Your task to perform on an android device: Show me popular games on the Play Store Image 0: 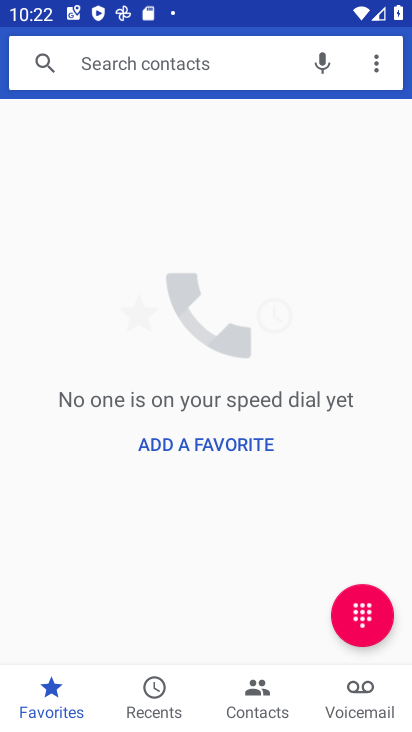
Step 0: press home button
Your task to perform on an android device: Show me popular games on the Play Store Image 1: 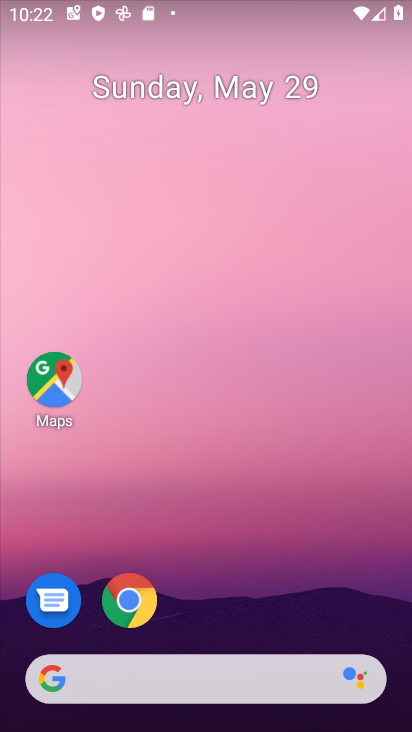
Step 1: drag from (242, 725) to (251, 120)
Your task to perform on an android device: Show me popular games on the Play Store Image 2: 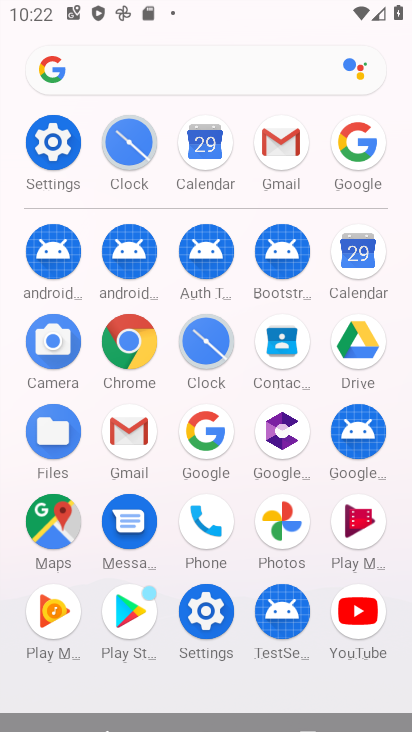
Step 2: click (125, 616)
Your task to perform on an android device: Show me popular games on the Play Store Image 3: 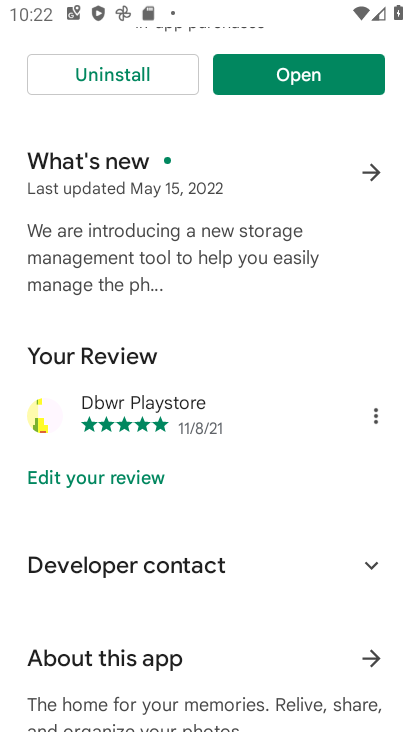
Step 3: drag from (189, 206) to (221, 534)
Your task to perform on an android device: Show me popular games on the Play Store Image 4: 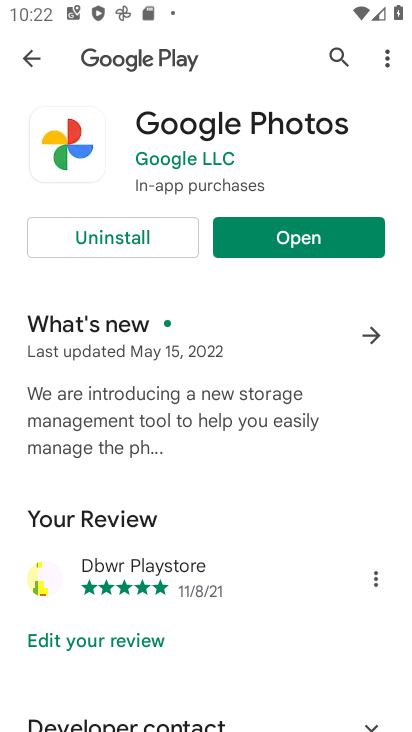
Step 4: click (28, 59)
Your task to perform on an android device: Show me popular games on the Play Store Image 5: 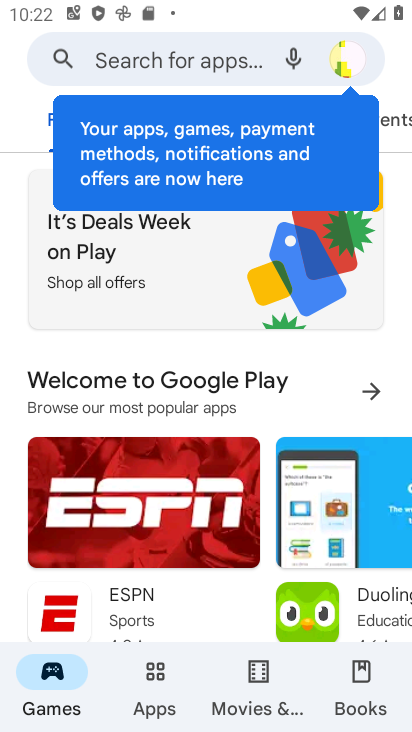
Step 5: drag from (204, 569) to (191, 224)
Your task to perform on an android device: Show me popular games on the Play Store Image 6: 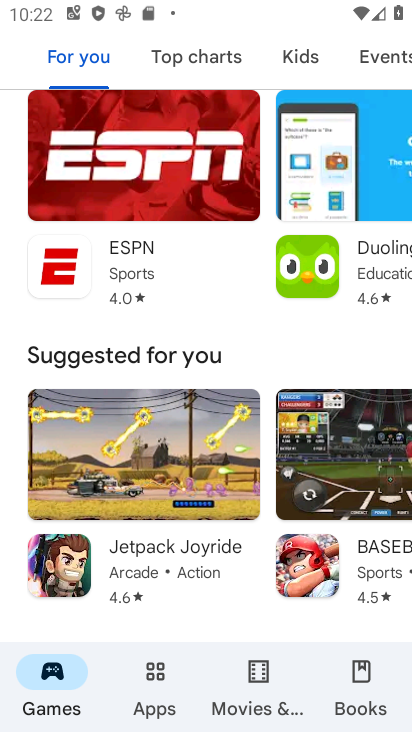
Step 6: drag from (216, 619) to (187, 90)
Your task to perform on an android device: Show me popular games on the Play Store Image 7: 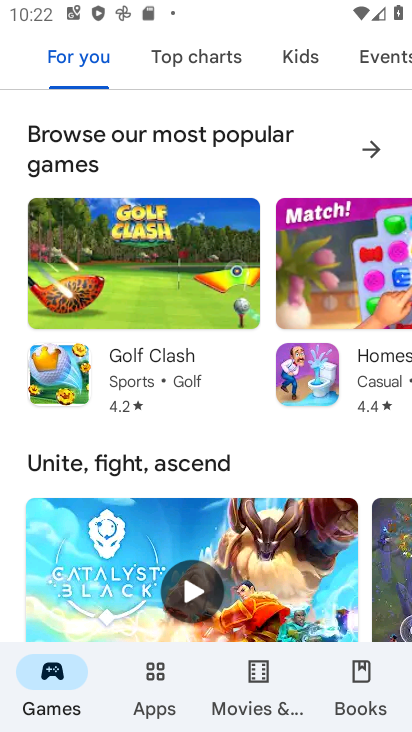
Step 7: click (372, 144)
Your task to perform on an android device: Show me popular games on the Play Store Image 8: 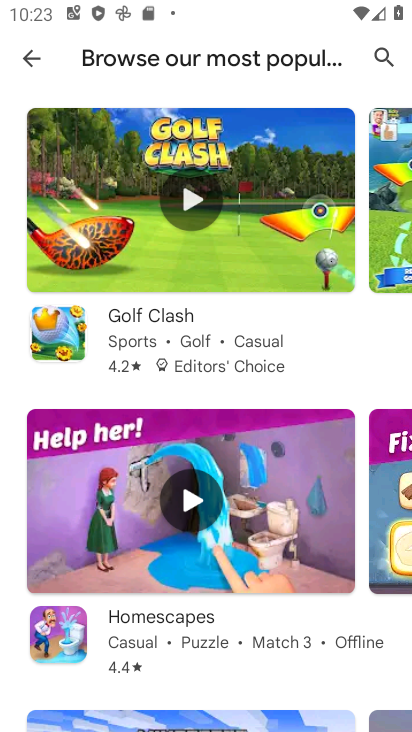
Step 8: task complete